Your task to perform on an android device: toggle location history Image 0: 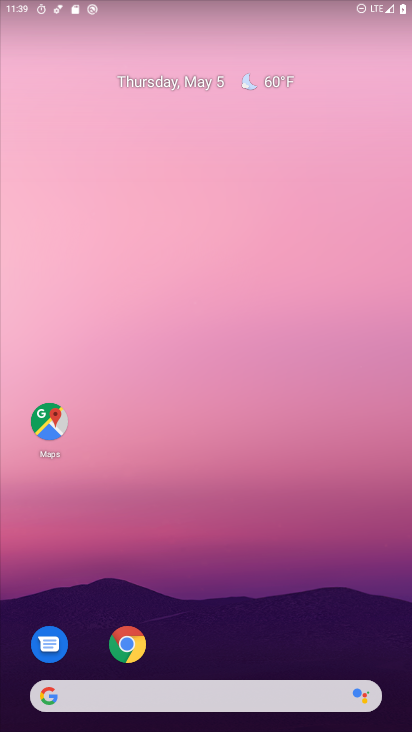
Step 0: press home button
Your task to perform on an android device: toggle location history Image 1: 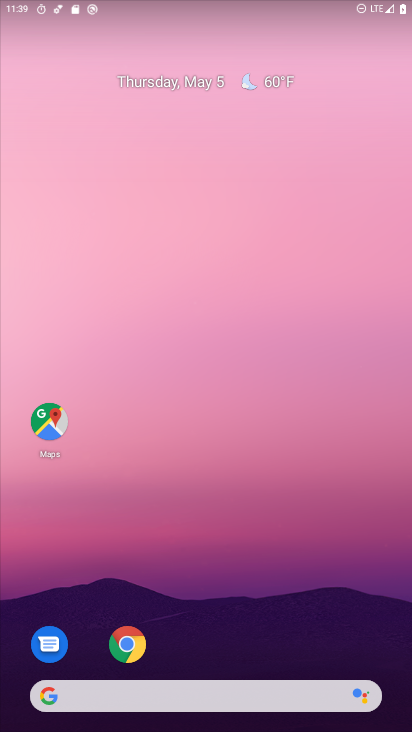
Step 1: drag from (364, 628) to (325, 113)
Your task to perform on an android device: toggle location history Image 2: 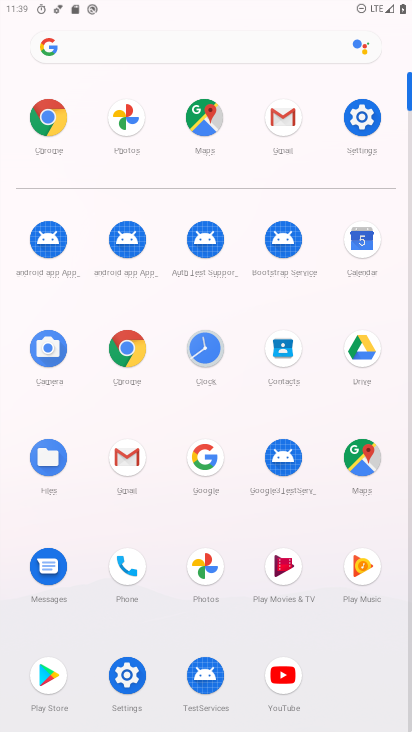
Step 2: click (127, 692)
Your task to perform on an android device: toggle location history Image 3: 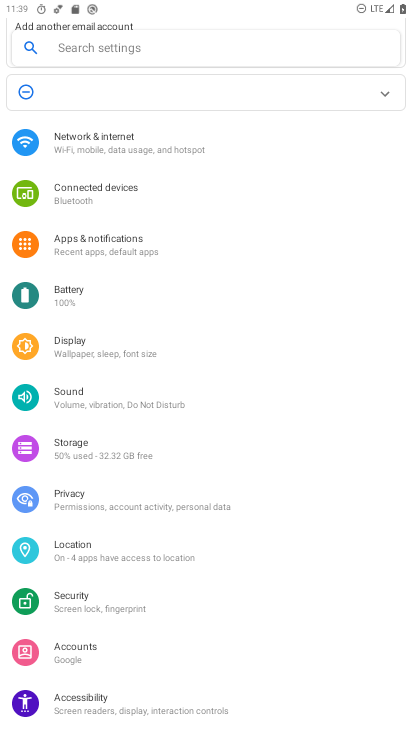
Step 3: click (129, 545)
Your task to perform on an android device: toggle location history Image 4: 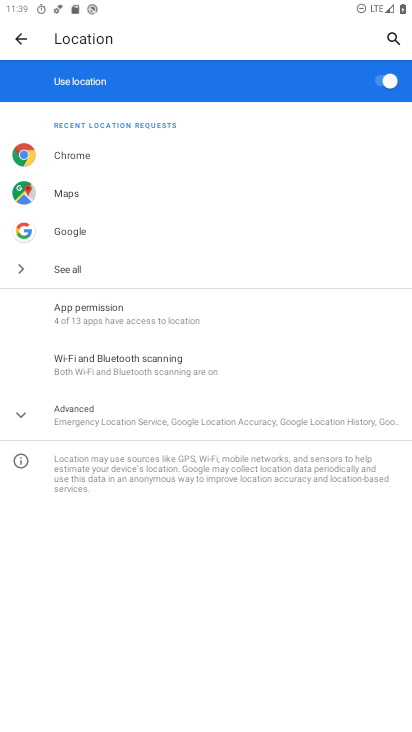
Step 4: click (126, 419)
Your task to perform on an android device: toggle location history Image 5: 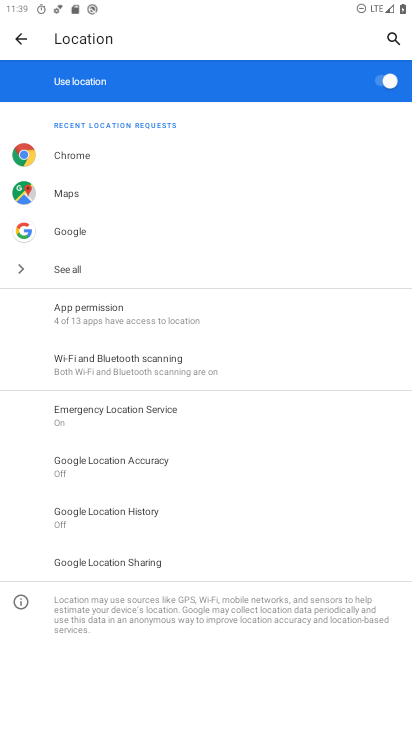
Step 5: click (140, 523)
Your task to perform on an android device: toggle location history Image 6: 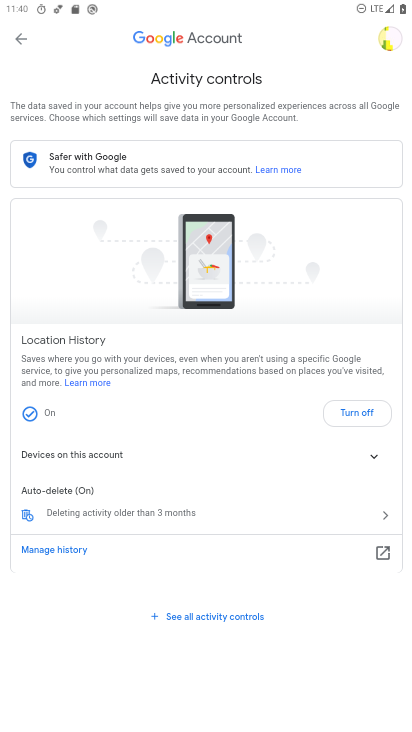
Step 6: click (348, 413)
Your task to perform on an android device: toggle location history Image 7: 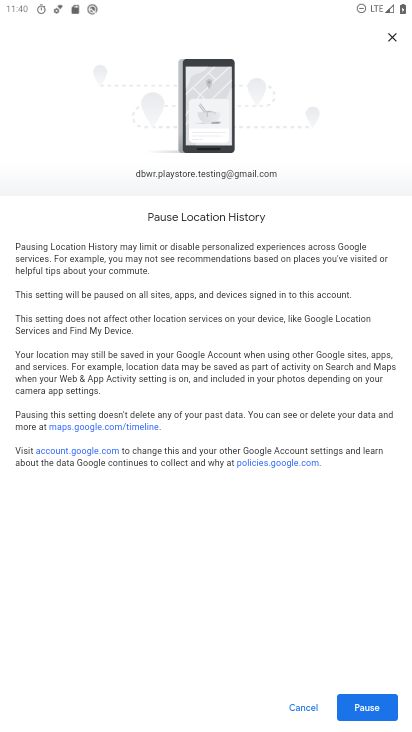
Step 7: drag from (334, 642) to (330, 331)
Your task to perform on an android device: toggle location history Image 8: 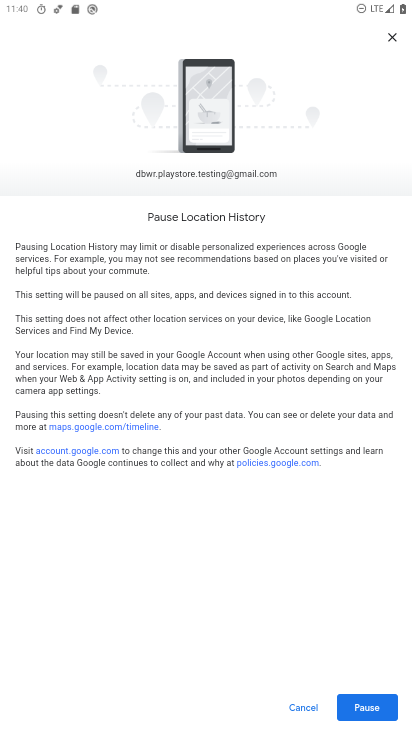
Step 8: click (368, 700)
Your task to perform on an android device: toggle location history Image 9: 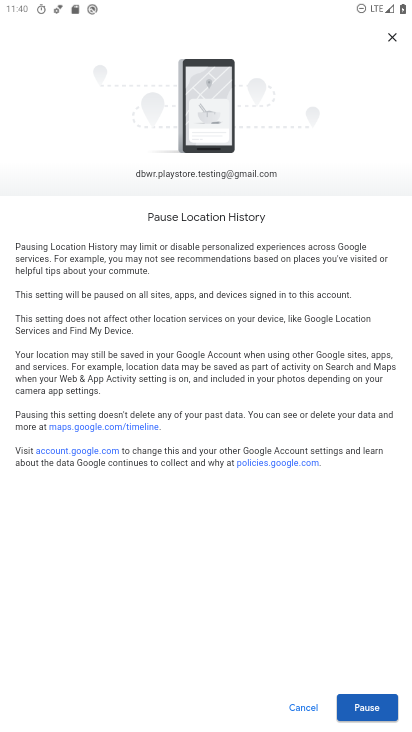
Step 9: click (360, 706)
Your task to perform on an android device: toggle location history Image 10: 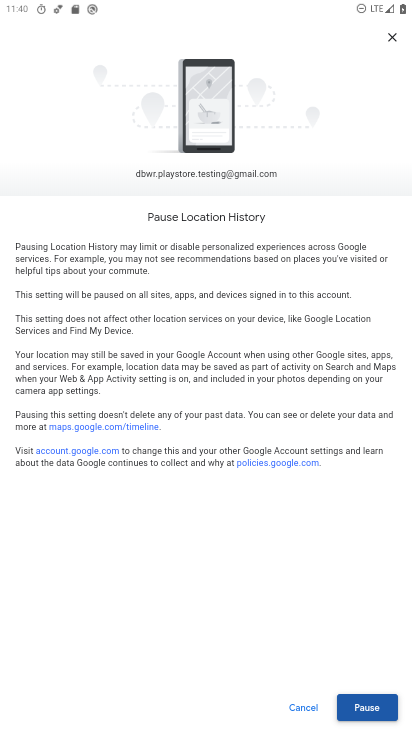
Step 10: click (352, 702)
Your task to perform on an android device: toggle location history Image 11: 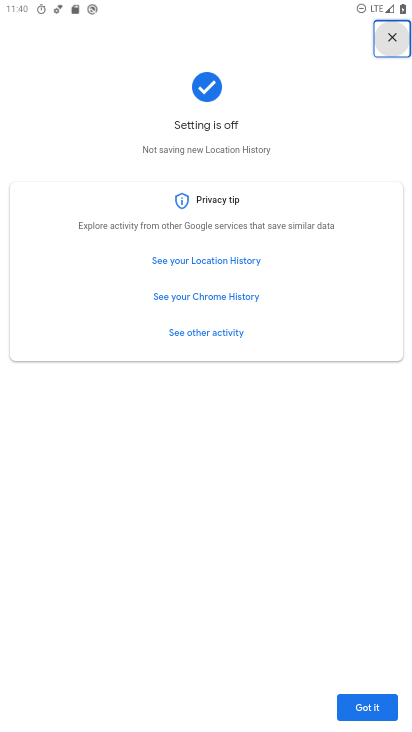
Step 11: click (371, 703)
Your task to perform on an android device: toggle location history Image 12: 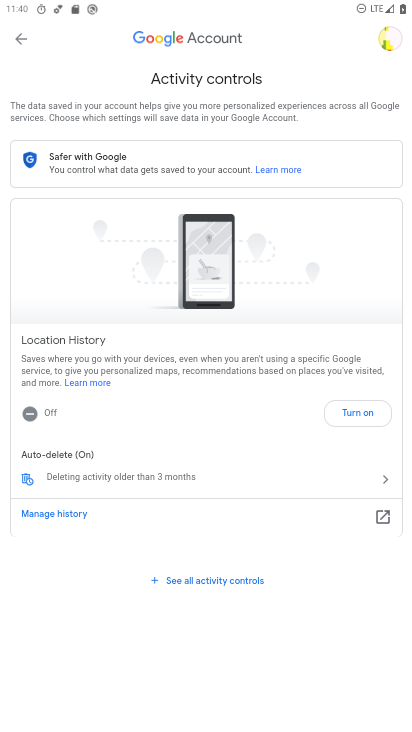
Step 12: task complete